Your task to perform on an android device: Check the settings for the Instagram app Image 0: 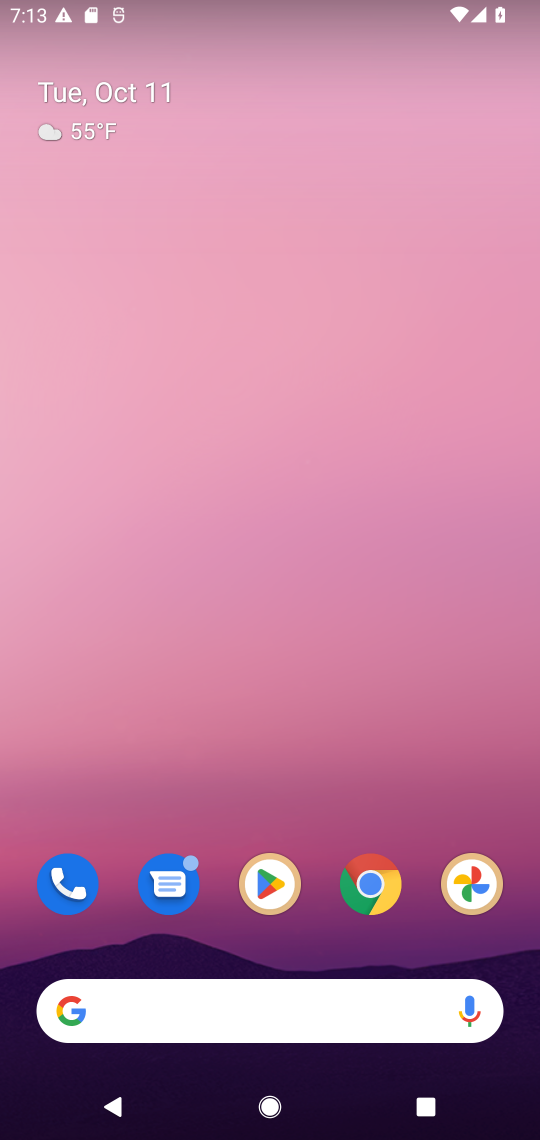
Step 0: drag from (320, 969) to (341, 21)
Your task to perform on an android device: Check the settings for the Instagram app Image 1: 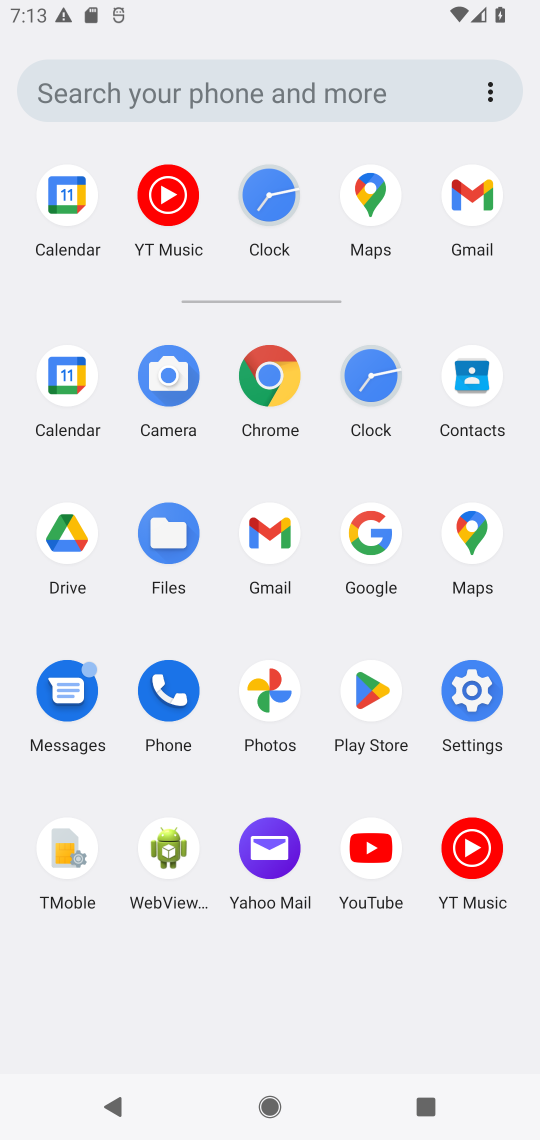
Step 1: click (373, 697)
Your task to perform on an android device: Check the settings for the Instagram app Image 2: 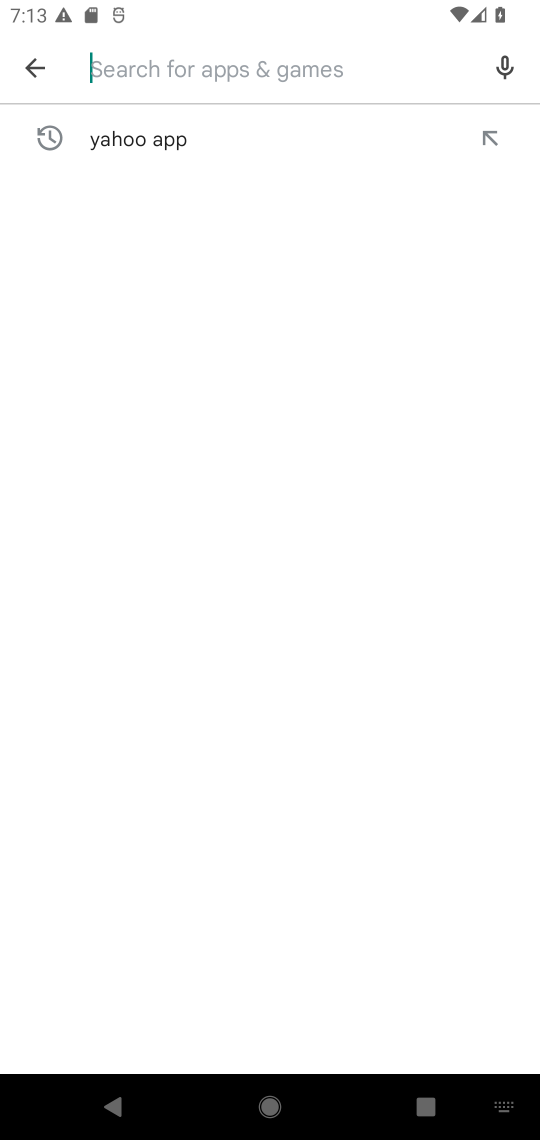
Step 2: click (37, 56)
Your task to perform on an android device: Check the settings for the Instagram app Image 3: 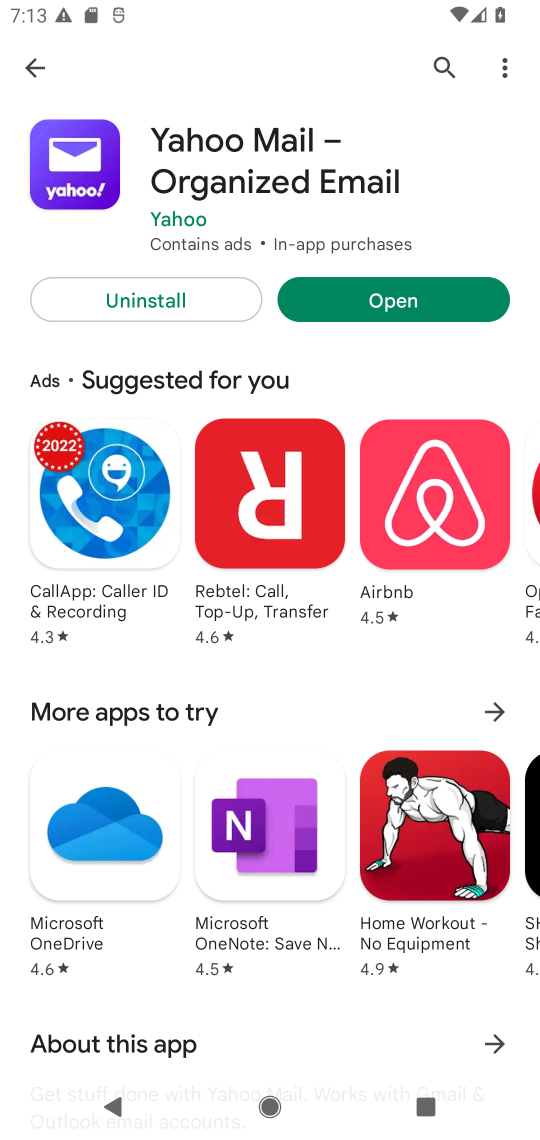
Step 3: task complete